Your task to perform on an android device: visit the assistant section in the google photos Image 0: 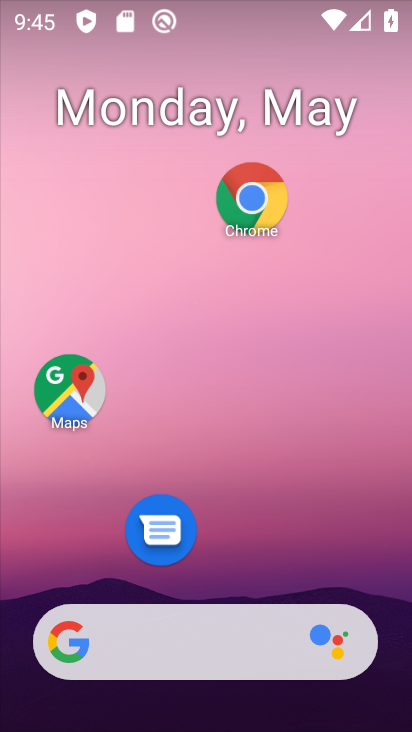
Step 0: drag from (246, 575) to (284, 64)
Your task to perform on an android device: visit the assistant section in the google photos Image 1: 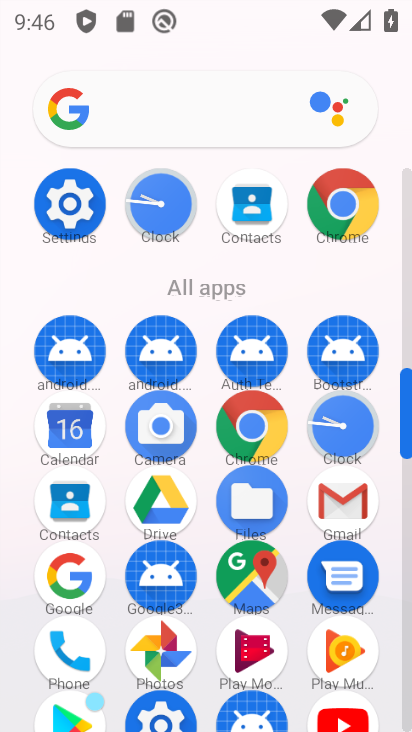
Step 1: click (164, 638)
Your task to perform on an android device: visit the assistant section in the google photos Image 2: 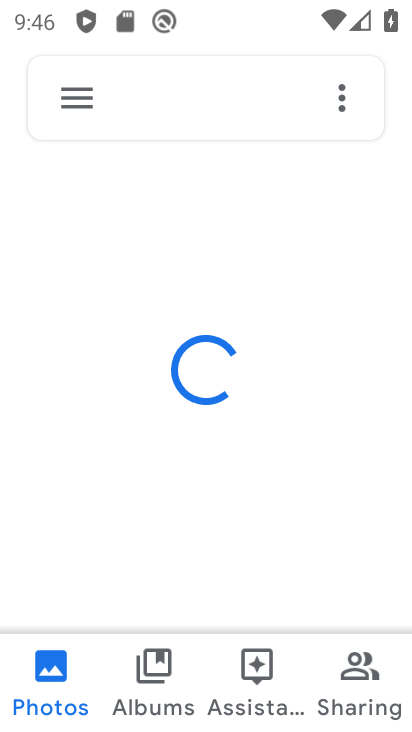
Step 2: click (252, 686)
Your task to perform on an android device: visit the assistant section in the google photos Image 3: 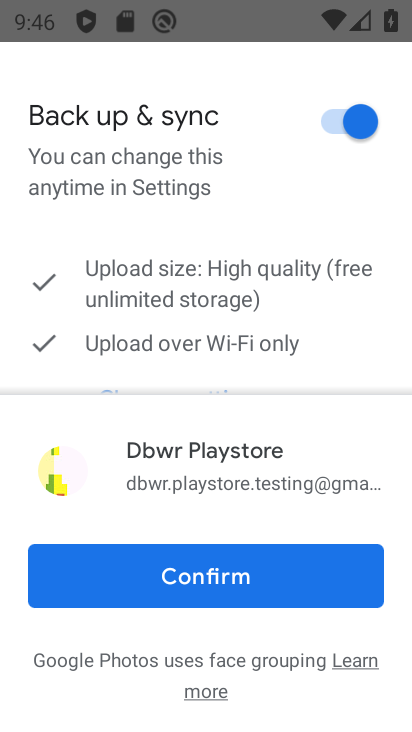
Step 3: click (151, 552)
Your task to perform on an android device: visit the assistant section in the google photos Image 4: 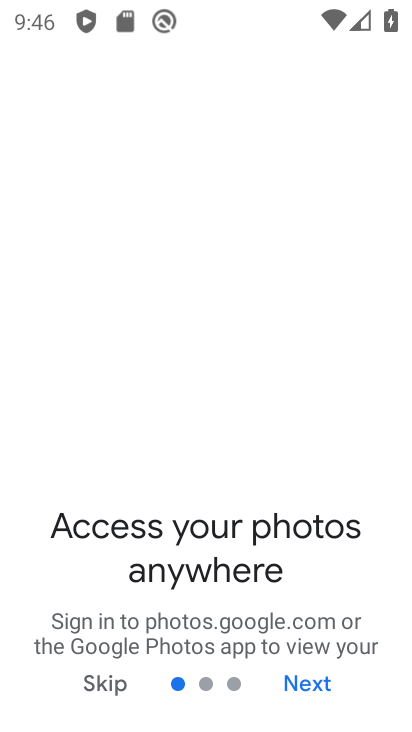
Step 4: click (306, 689)
Your task to perform on an android device: visit the assistant section in the google photos Image 5: 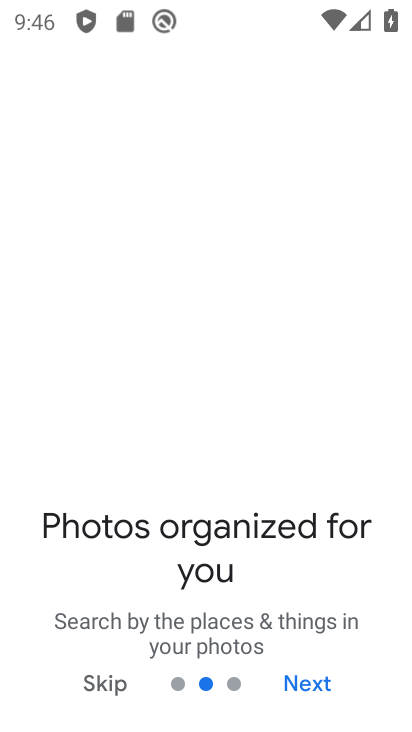
Step 5: click (314, 684)
Your task to perform on an android device: visit the assistant section in the google photos Image 6: 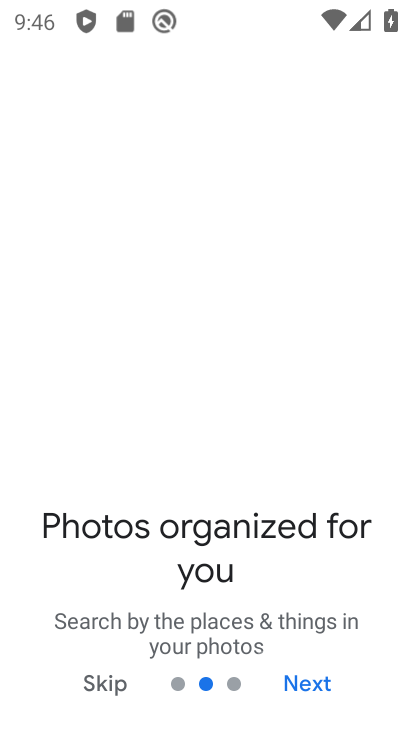
Step 6: click (315, 682)
Your task to perform on an android device: visit the assistant section in the google photos Image 7: 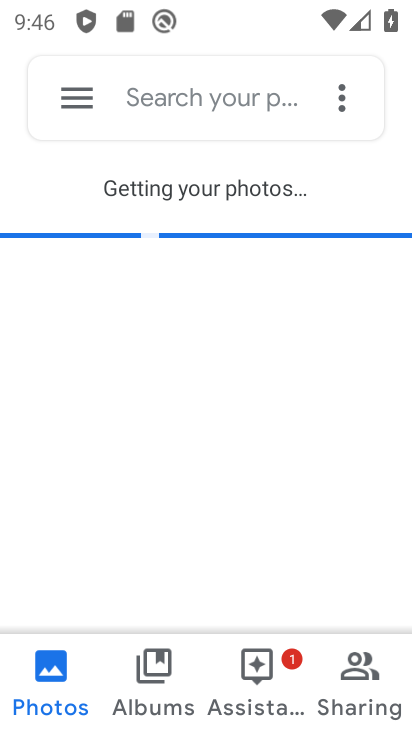
Step 7: click (315, 682)
Your task to perform on an android device: visit the assistant section in the google photos Image 8: 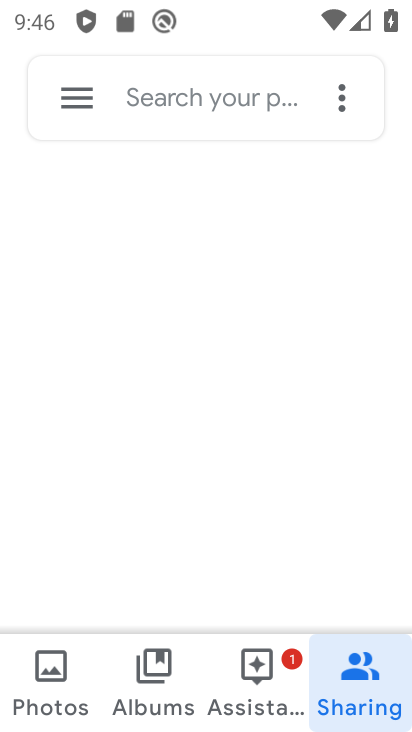
Step 8: click (256, 686)
Your task to perform on an android device: visit the assistant section in the google photos Image 9: 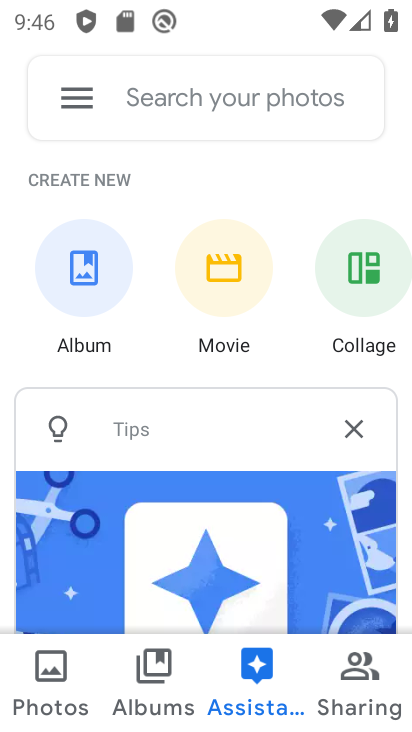
Step 9: task complete